Your task to perform on an android device: Open calendar and show me the third week of next month Image 0: 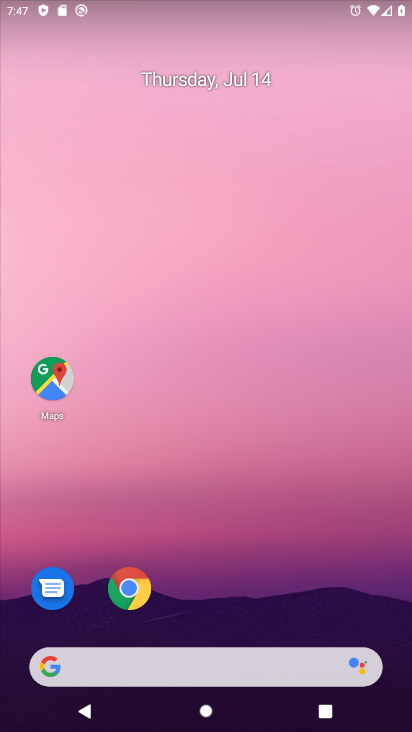
Step 0: drag from (38, 672) to (265, 94)
Your task to perform on an android device: Open calendar and show me the third week of next month Image 1: 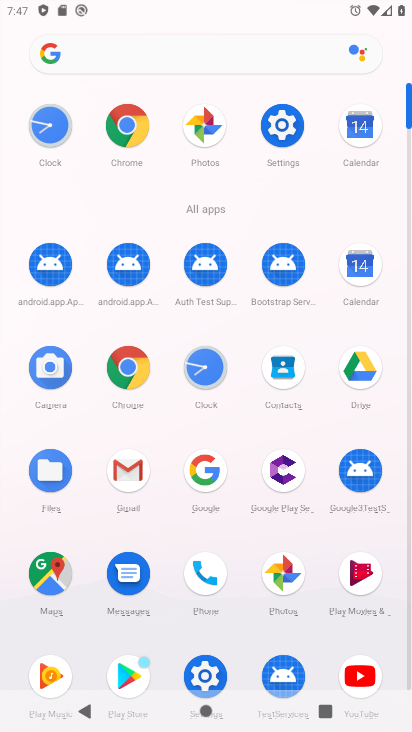
Step 1: click (343, 266)
Your task to perform on an android device: Open calendar and show me the third week of next month Image 2: 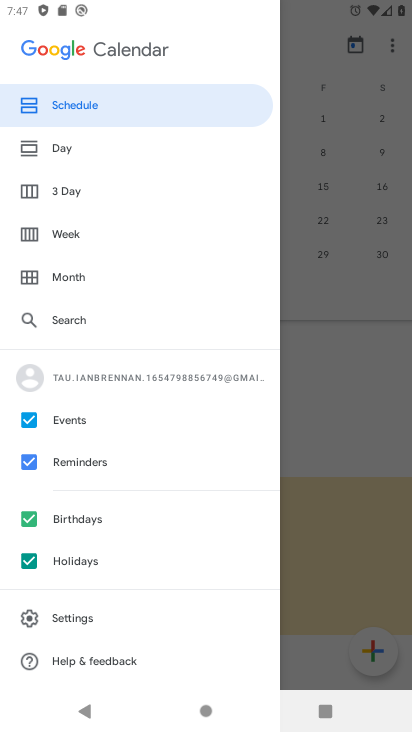
Step 2: click (356, 349)
Your task to perform on an android device: Open calendar and show me the third week of next month Image 3: 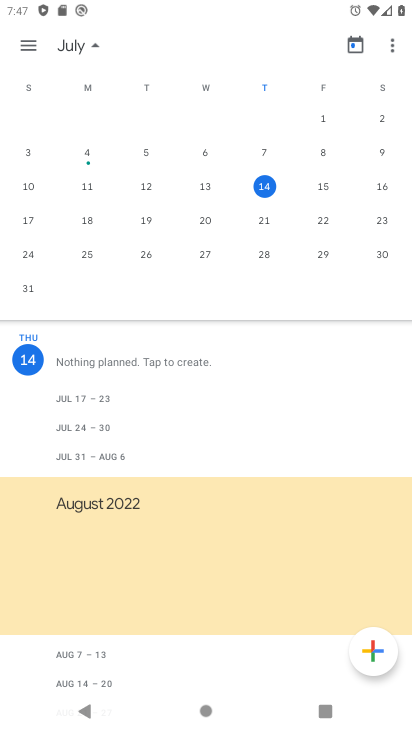
Step 3: drag from (373, 207) to (44, 207)
Your task to perform on an android device: Open calendar and show me the third week of next month Image 4: 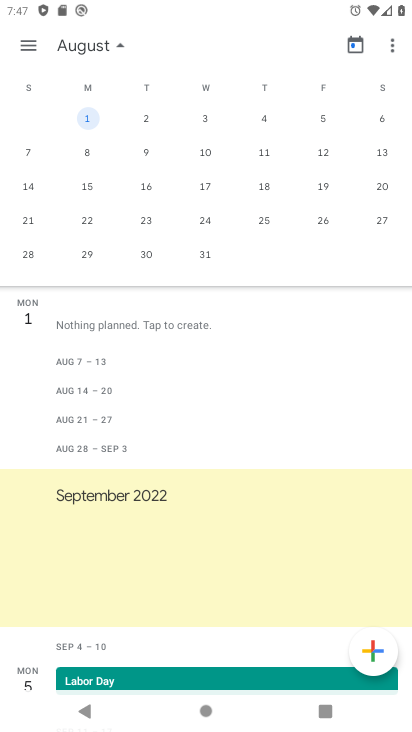
Step 4: click (88, 181)
Your task to perform on an android device: Open calendar and show me the third week of next month Image 5: 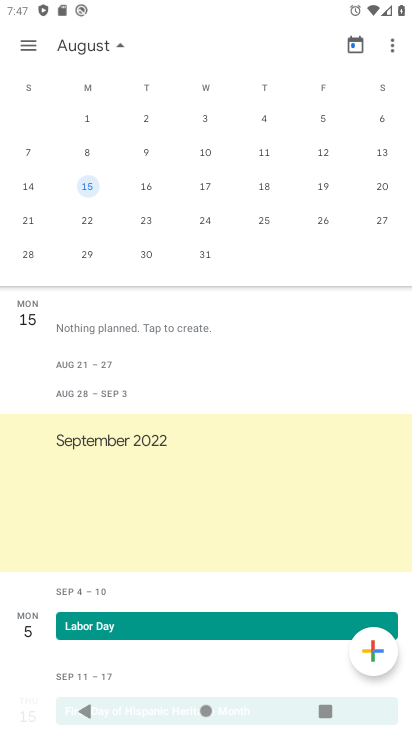
Step 5: task complete